Your task to perform on an android device: add a contact in the contacts app Image 0: 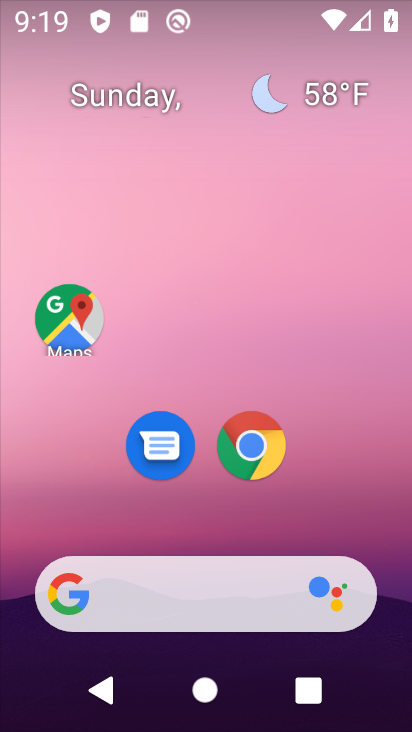
Step 0: drag from (217, 574) to (254, 133)
Your task to perform on an android device: add a contact in the contacts app Image 1: 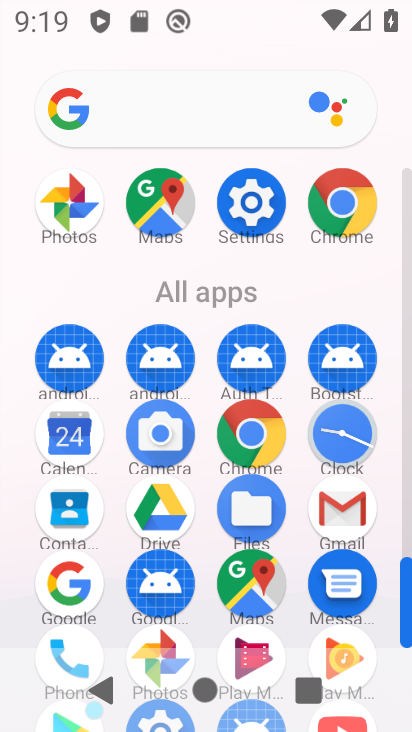
Step 1: click (62, 517)
Your task to perform on an android device: add a contact in the contacts app Image 2: 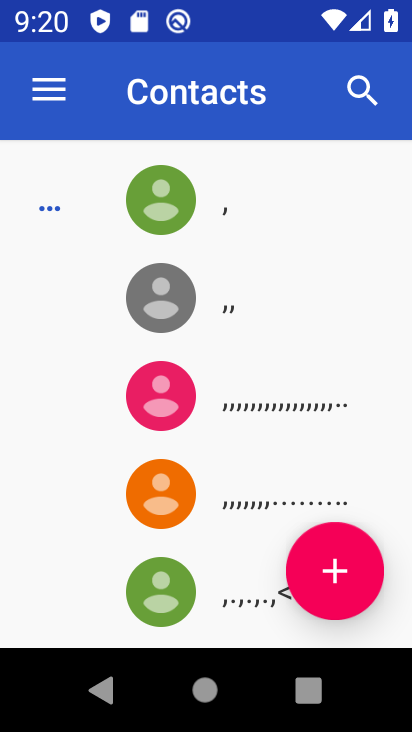
Step 2: click (346, 569)
Your task to perform on an android device: add a contact in the contacts app Image 3: 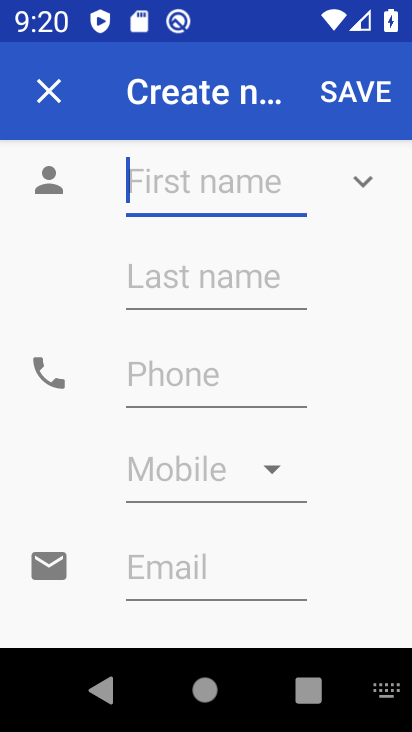
Step 3: type "ggdsff"
Your task to perform on an android device: add a contact in the contacts app Image 4: 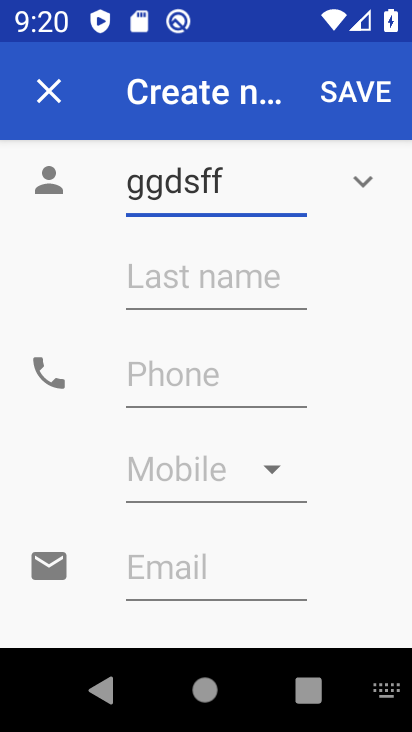
Step 4: click (217, 364)
Your task to perform on an android device: add a contact in the contacts app Image 5: 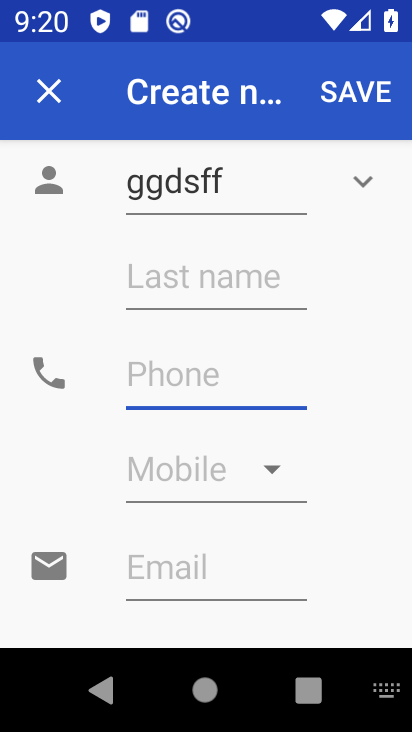
Step 5: type "7679986775"
Your task to perform on an android device: add a contact in the contacts app Image 6: 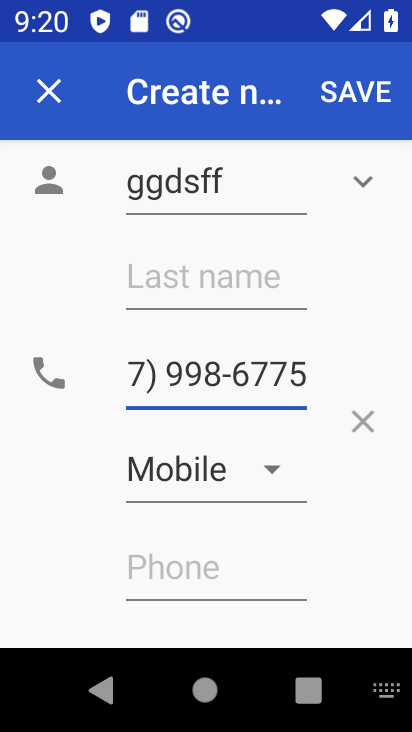
Step 6: click (346, 92)
Your task to perform on an android device: add a contact in the contacts app Image 7: 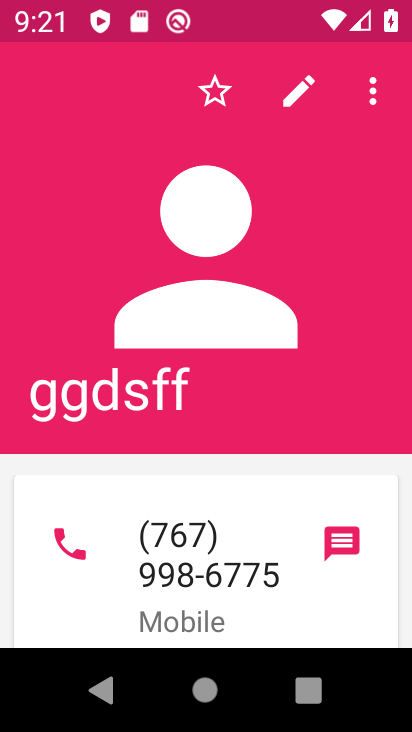
Step 7: task complete